Your task to perform on an android device: toggle show notifications on the lock screen Image 0: 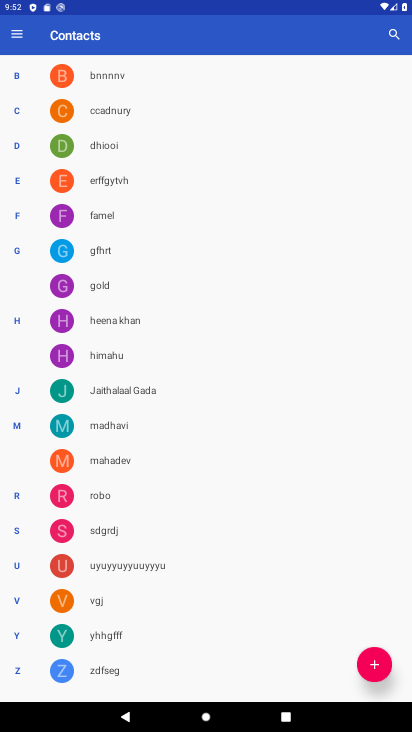
Step 0: press home button
Your task to perform on an android device: toggle show notifications on the lock screen Image 1: 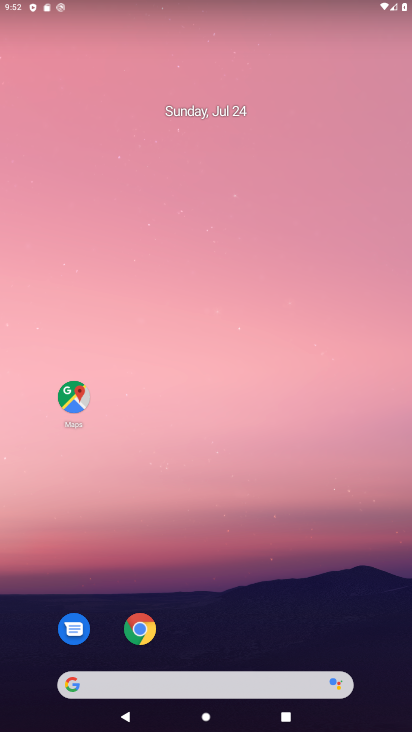
Step 1: drag from (187, 683) to (269, 38)
Your task to perform on an android device: toggle show notifications on the lock screen Image 2: 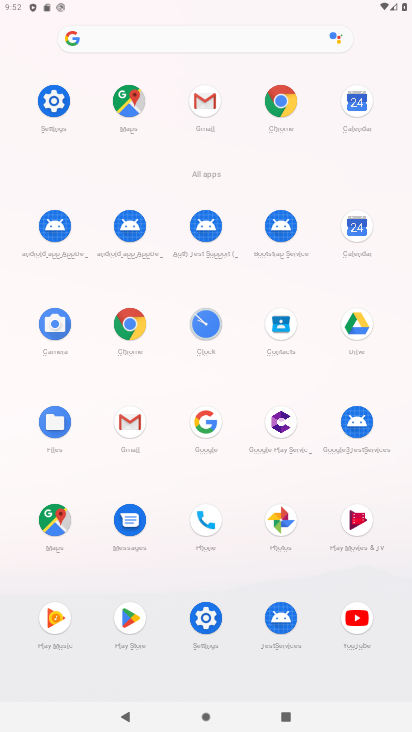
Step 2: click (54, 100)
Your task to perform on an android device: toggle show notifications on the lock screen Image 3: 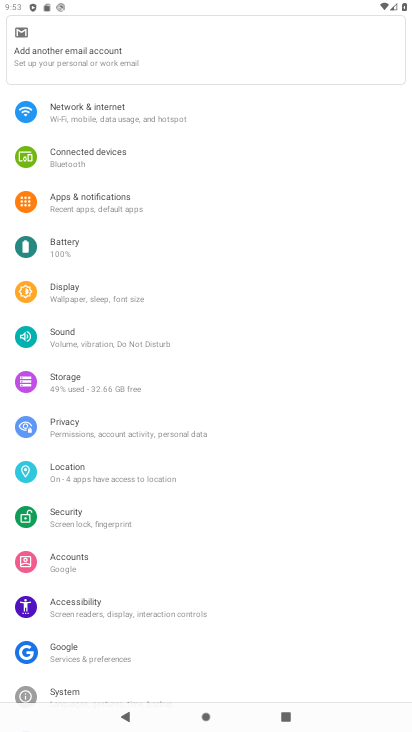
Step 3: click (121, 205)
Your task to perform on an android device: toggle show notifications on the lock screen Image 4: 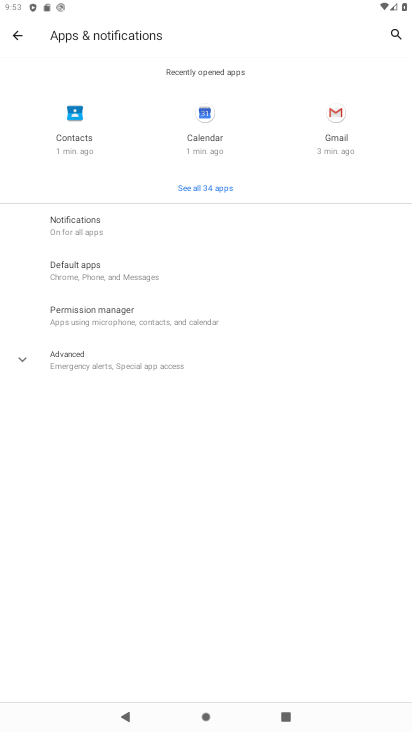
Step 4: click (80, 231)
Your task to perform on an android device: toggle show notifications on the lock screen Image 5: 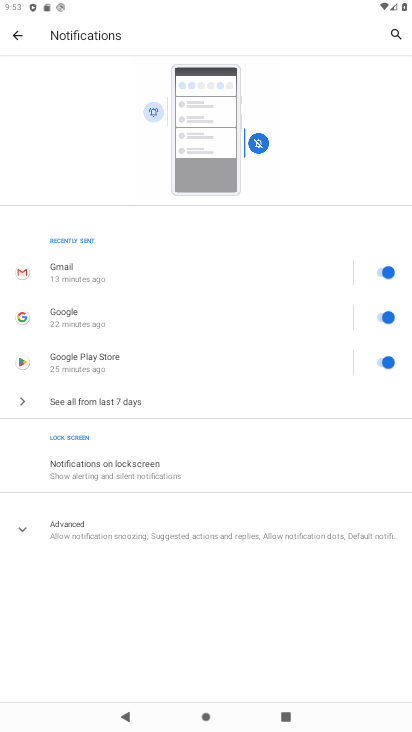
Step 5: click (102, 471)
Your task to perform on an android device: toggle show notifications on the lock screen Image 6: 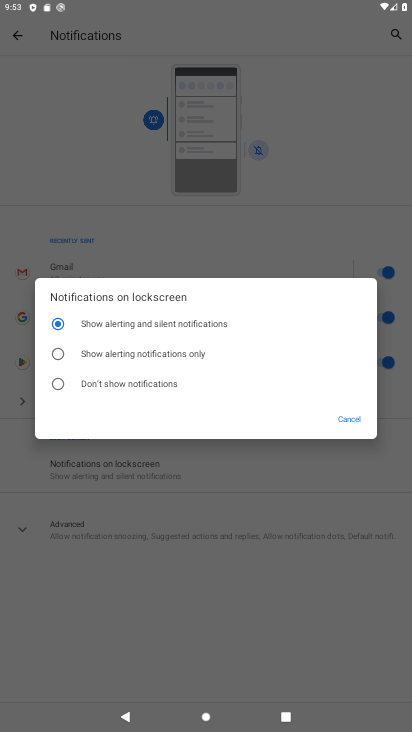
Step 6: click (59, 381)
Your task to perform on an android device: toggle show notifications on the lock screen Image 7: 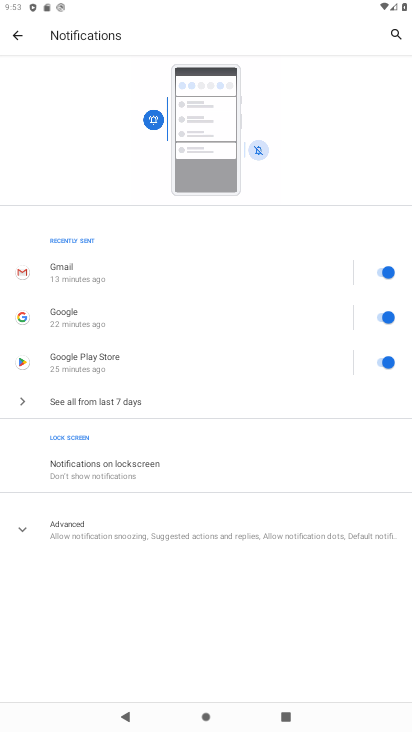
Step 7: task complete